Your task to perform on an android device: Open Google Chrome and click the shortcut for Amazon.com Image 0: 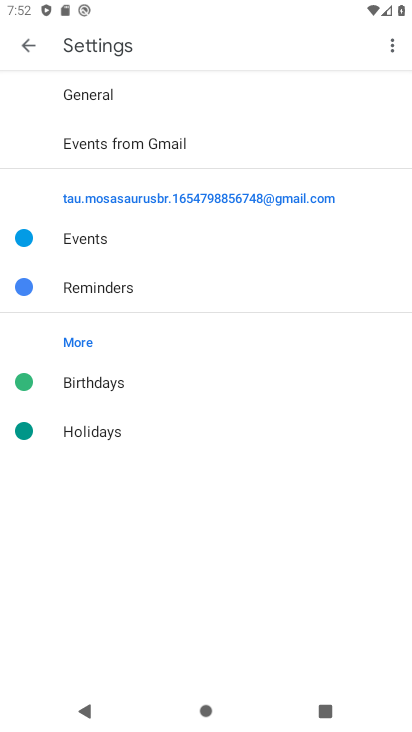
Step 0: press home button
Your task to perform on an android device: Open Google Chrome and click the shortcut for Amazon.com Image 1: 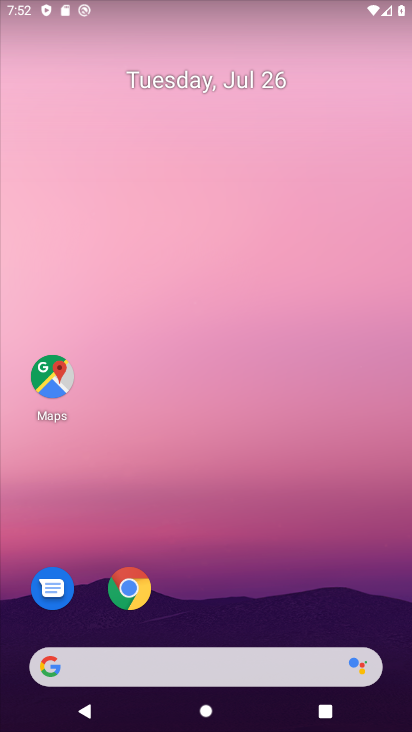
Step 1: drag from (238, 731) to (232, 354)
Your task to perform on an android device: Open Google Chrome and click the shortcut for Amazon.com Image 2: 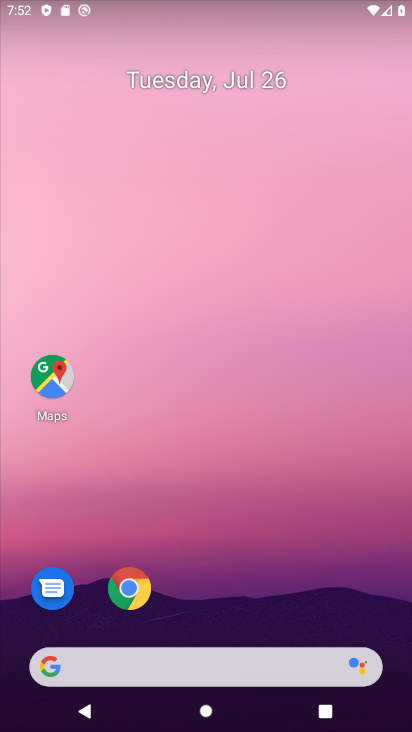
Step 2: click (121, 597)
Your task to perform on an android device: Open Google Chrome and click the shortcut for Amazon.com Image 3: 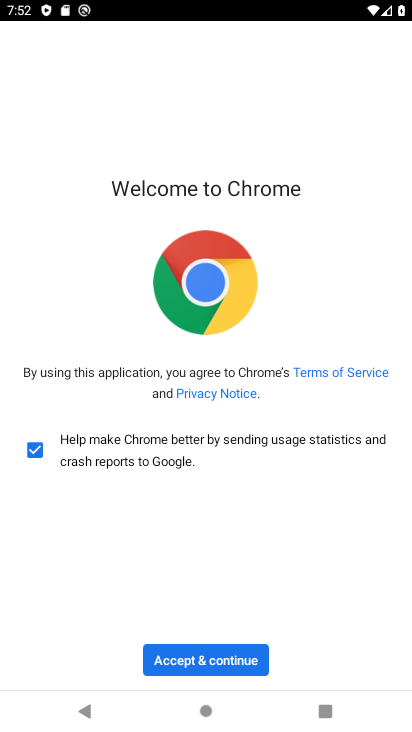
Step 3: click (229, 661)
Your task to perform on an android device: Open Google Chrome and click the shortcut for Amazon.com Image 4: 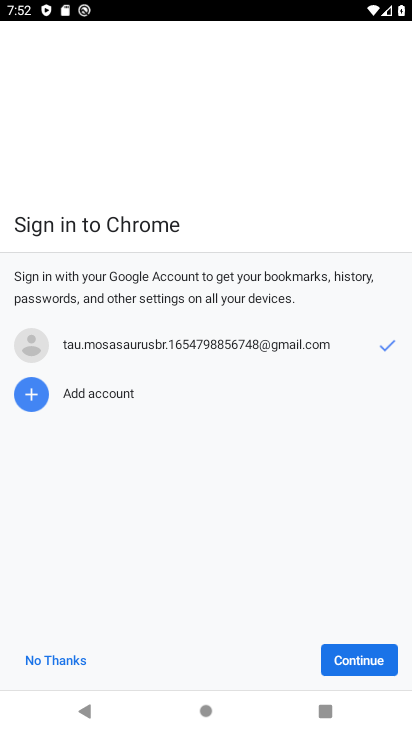
Step 4: click (373, 659)
Your task to perform on an android device: Open Google Chrome and click the shortcut for Amazon.com Image 5: 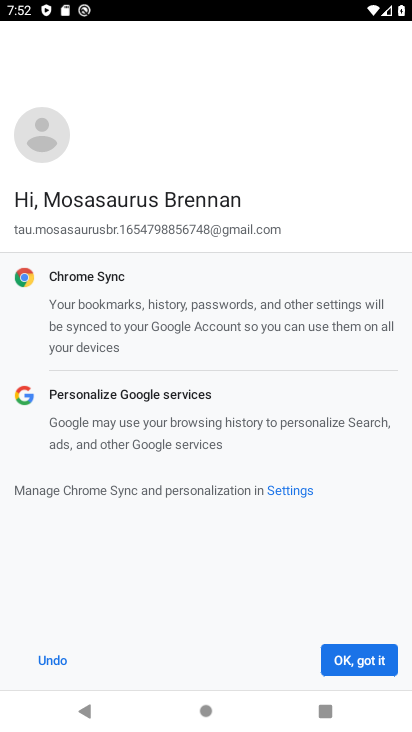
Step 5: click (373, 659)
Your task to perform on an android device: Open Google Chrome and click the shortcut for Amazon.com Image 6: 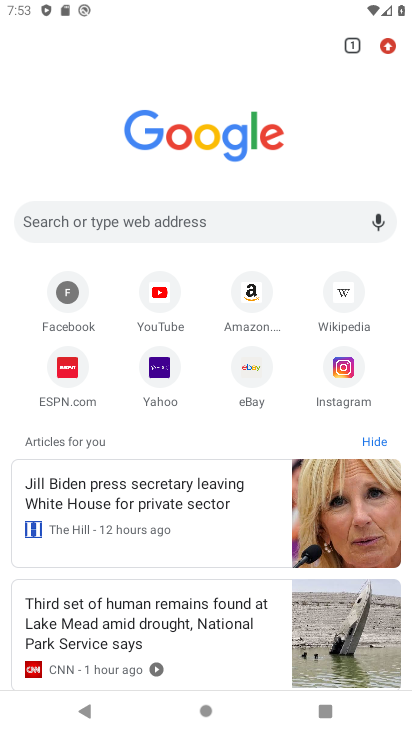
Step 6: click (250, 288)
Your task to perform on an android device: Open Google Chrome and click the shortcut for Amazon.com Image 7: 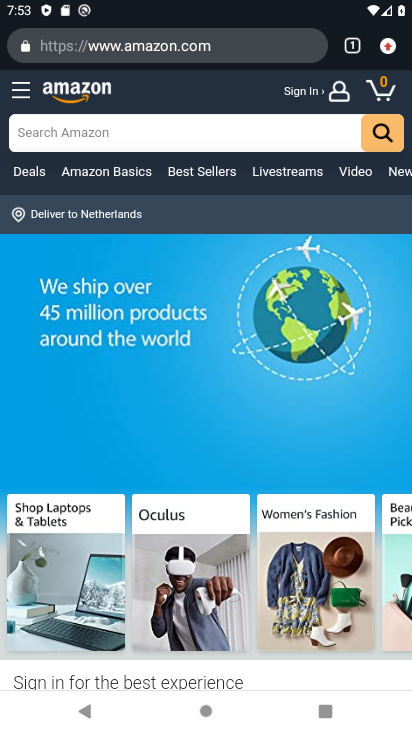
Step 7: task complete